Your task to perform on an android device: show emergency info Image 0: 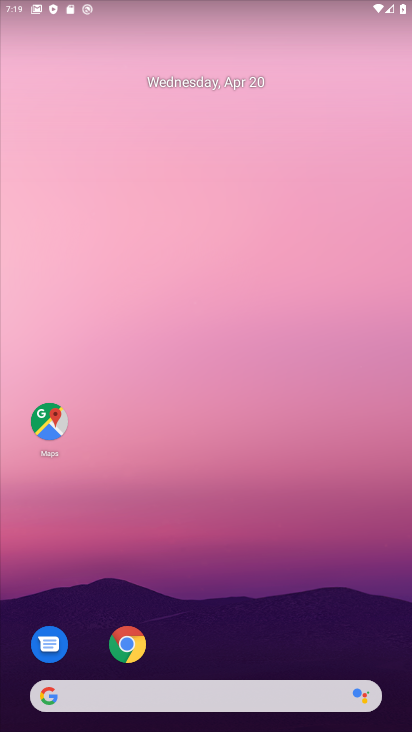
Step 0: drag from (341, 627) to (200, 106)
Your task to perform on an android device: show emergency info Image 1: 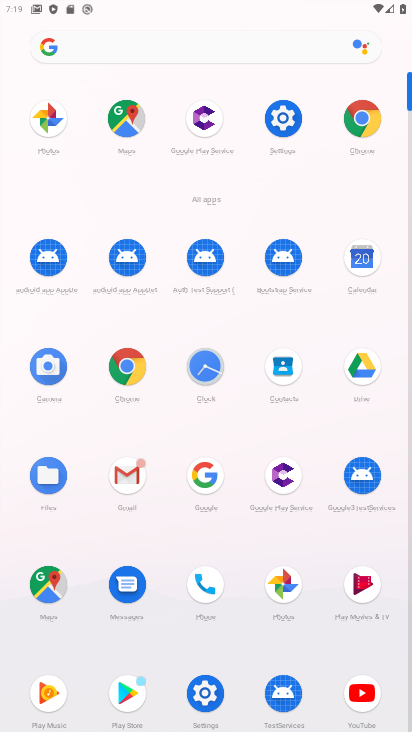
Step 1: click (207, 684)
Your task to perform on an android device: show emergency info Image 2: 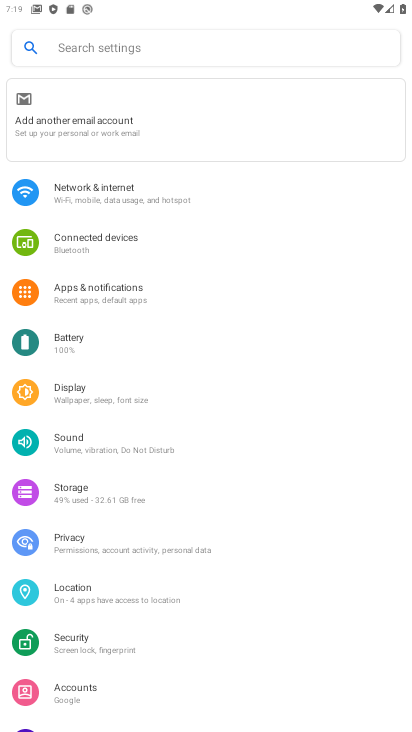
Step 2: drag from (207, 684) to (189, 128)
Your task to perform on an android device: show emergency info Image 3: 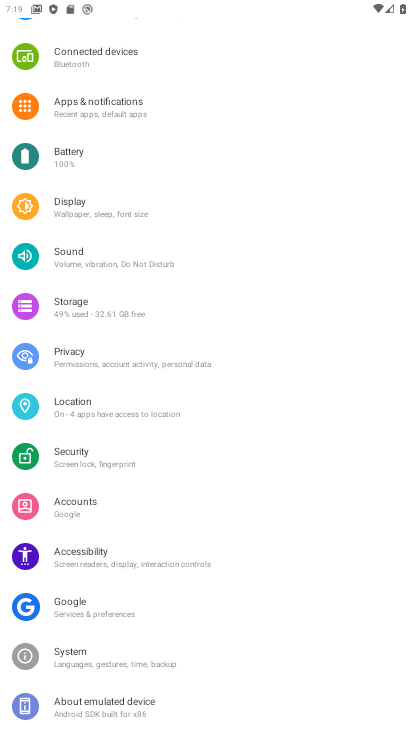
Step 3: click (161, 719)
Your task to perform on an android device: show emergency info Image 4: 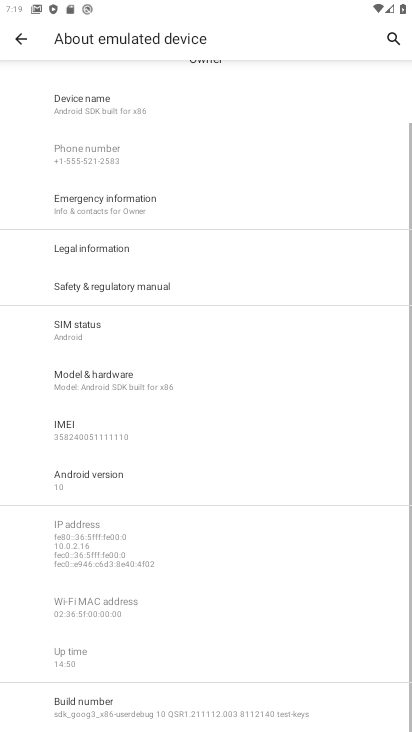
Step 4: click (135, 200)
Your task to perform on an android device: show emergency info Image 5: 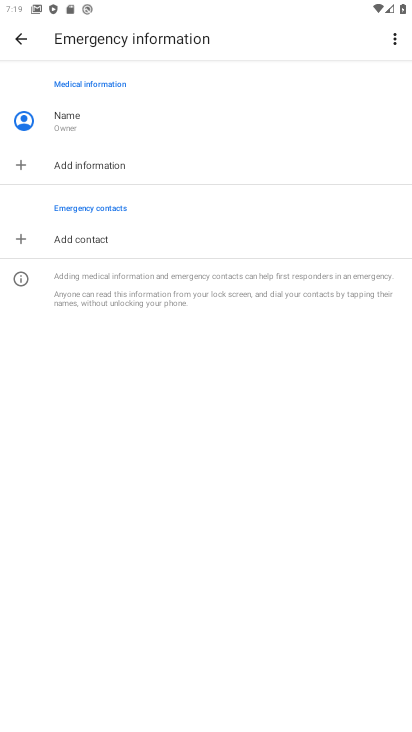
Step 5: task complete